Your task to perform on an android device: Go to eBay Image 0: 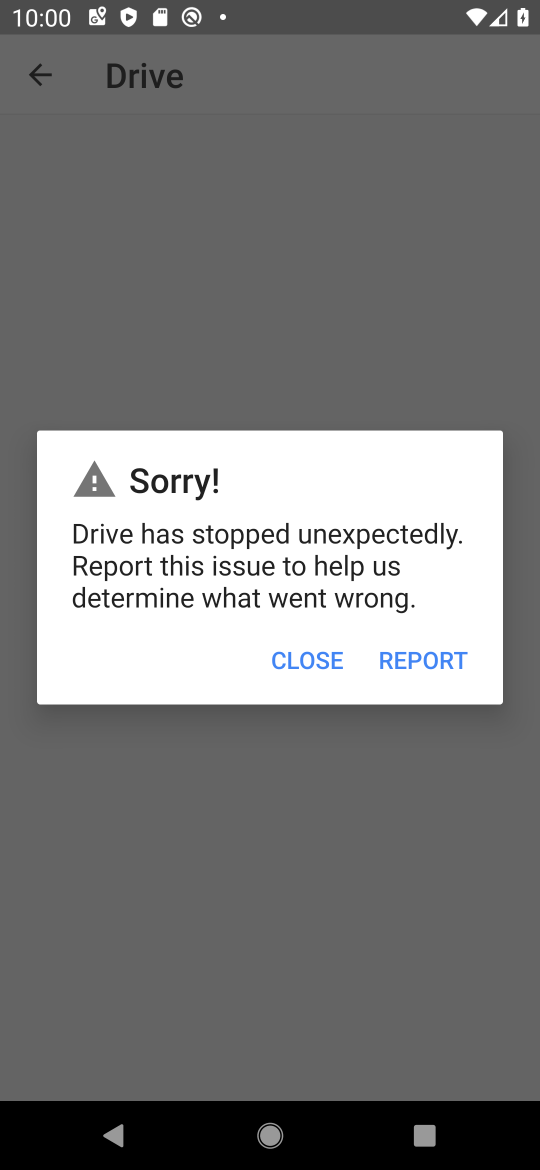
Step 0: press home button
Your task to perform on an android device: Go to eBay Image 1: 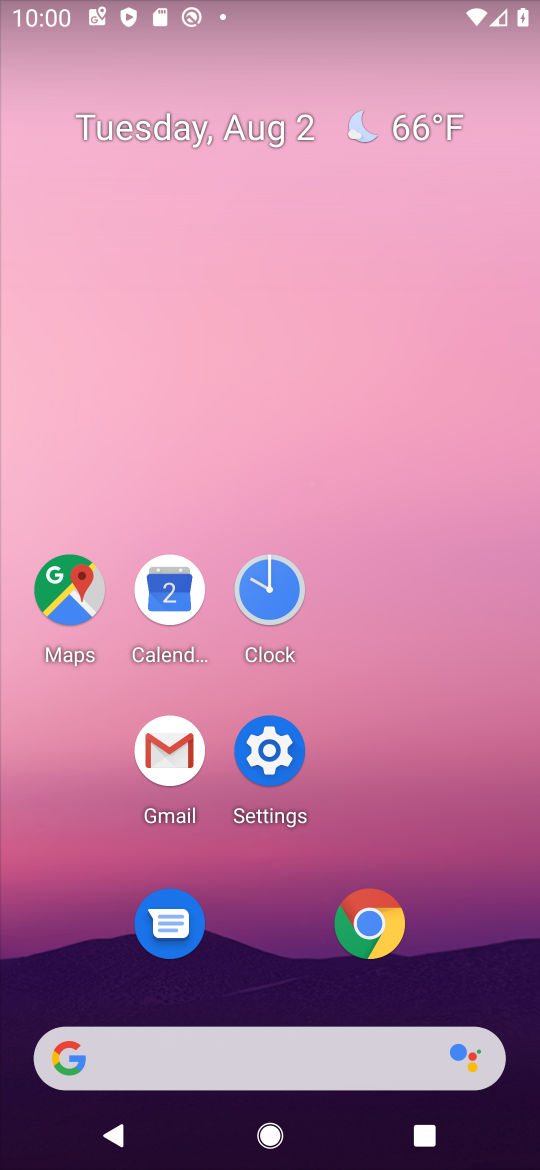
Step 1: click (372, 919)
Your task to perform on an android device: Go to eBay Image 2: 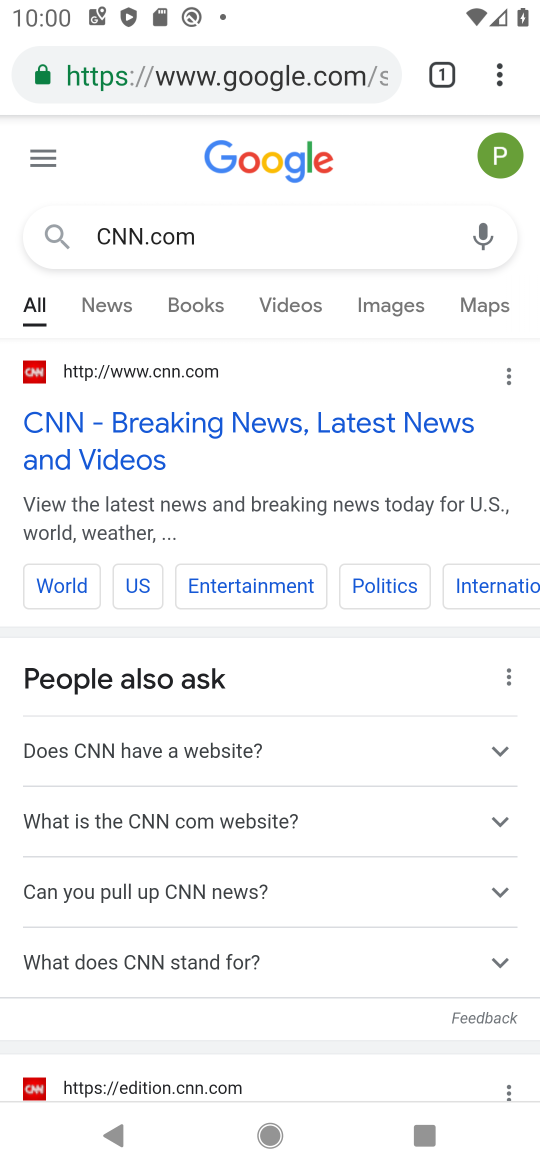
Step 2: click (349, 72)
Your task to perform on an android device: Go to eBay Image 3: 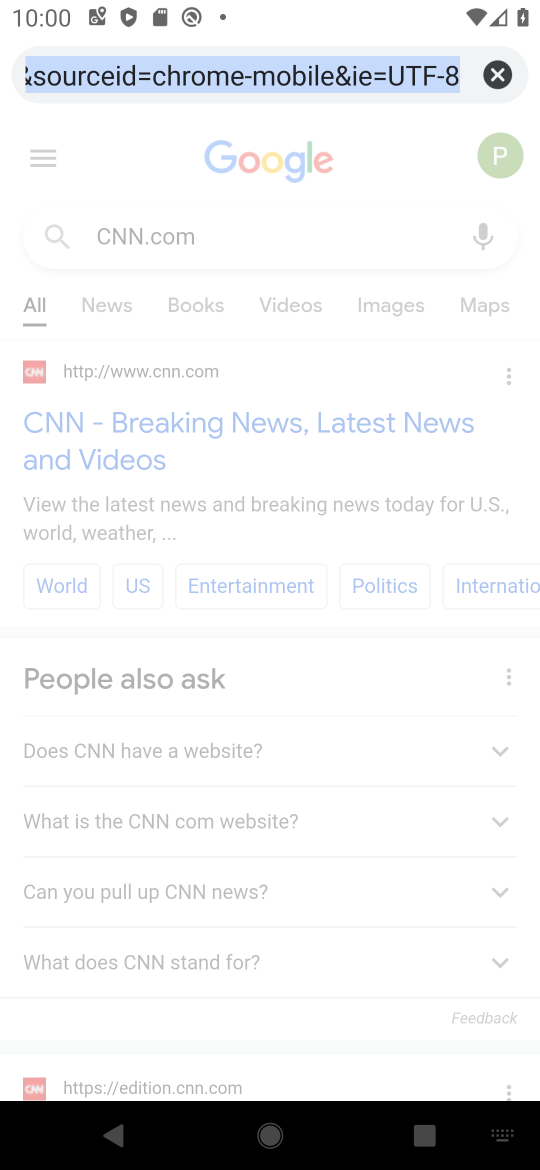
Step 3: click (491, 81)
Your task to perform on an android device: Go to eBay Image 4: 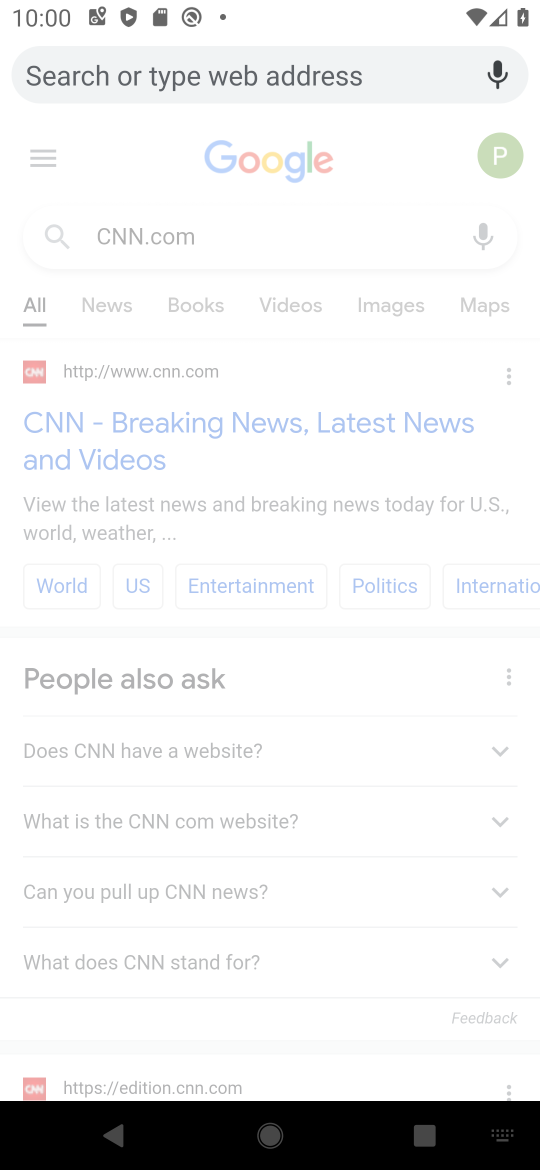
Step 4: type "eBay"
Your task to perform on an android device: Go to eBay Image 5: 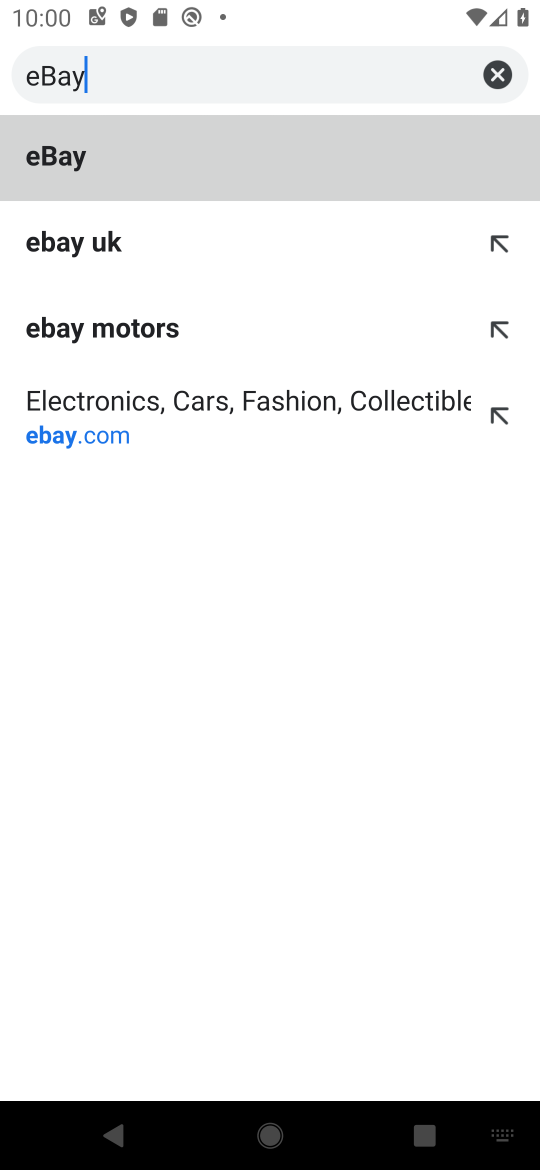
Step 5: click (161, 177)
Your task to perform on an android device: Go to eBay Image 6: 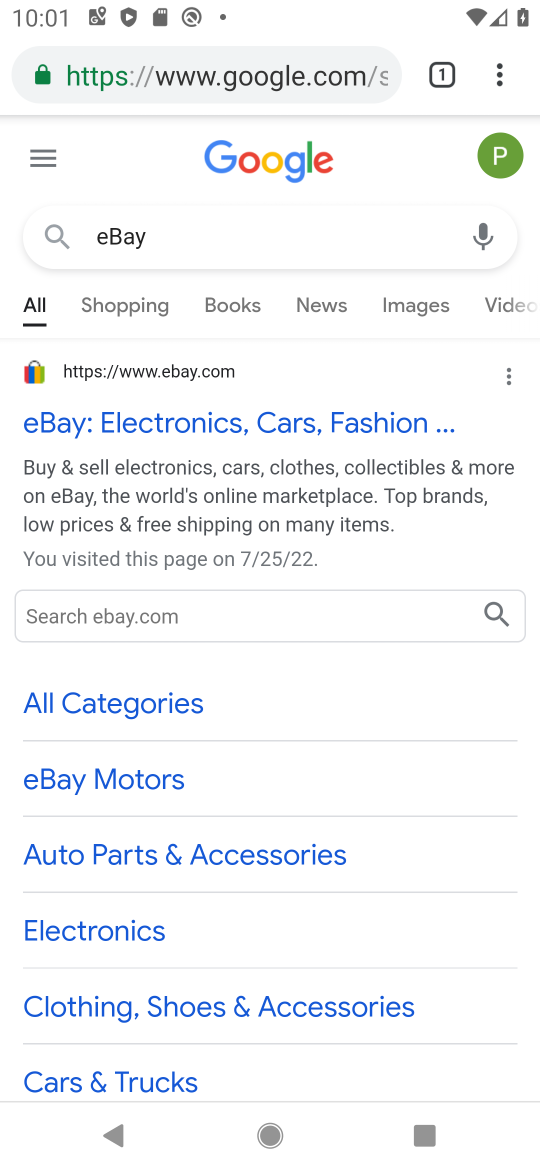
Step 6: task complete